Your task to perform on an android device: When is my next appointment? Image 0: 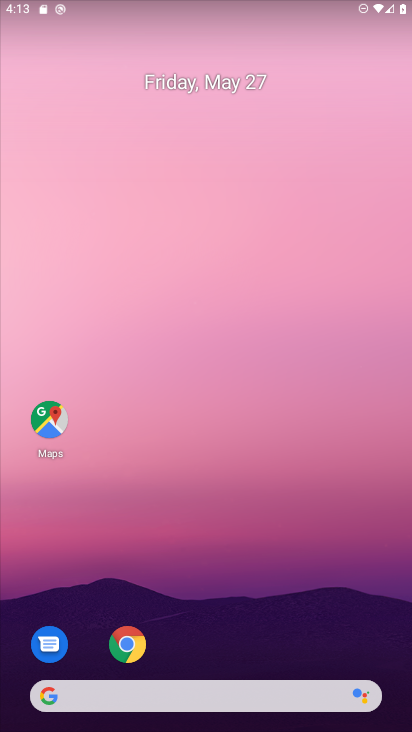
Step 0: click (202, 81)
Your task to perform on an android device: When is my next appointment? Image 1: 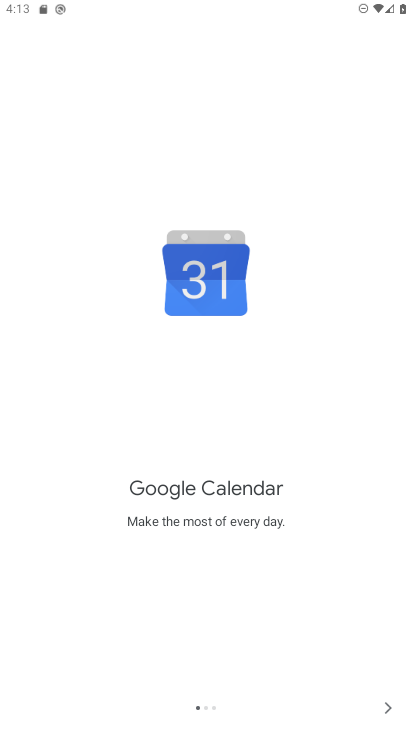
Step 1: click (381, 710)
Your task to perform on an android device: When is my next appointment? Image 2: 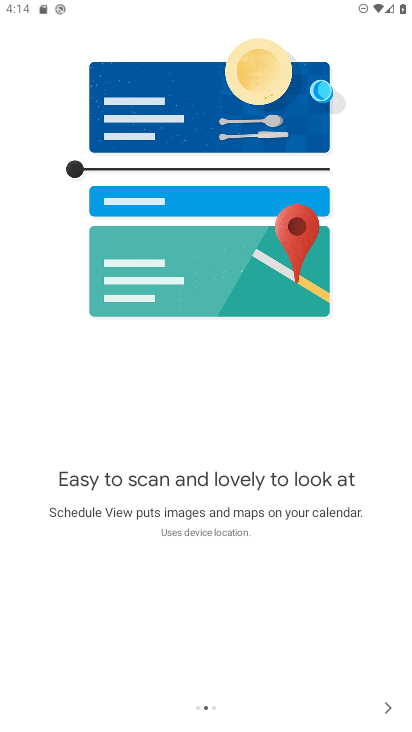
Step 2: click (390, 704)
Your task to perform on an android device: When is my next appointment? Image 3: 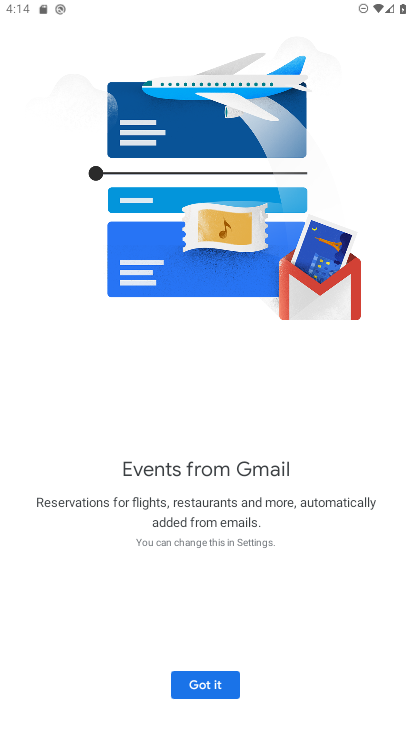
Step 3: click (204, 677)
Your task to perform on an android device: When is my next appointment? Image 4: 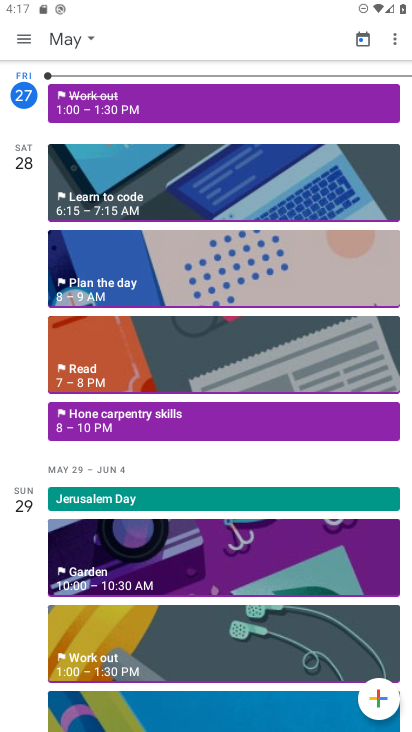
Step 4: task complete